Your task to perform on an android device: search for starred emails in the gmail app Image 0: 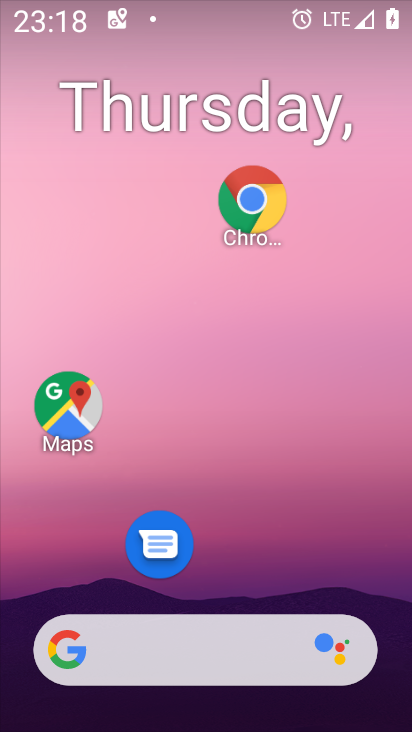
Step 0: drag from (233, 616) to (273, 165)
Your task to perform on an android device: search for starred emails in the gmail app Image 1: 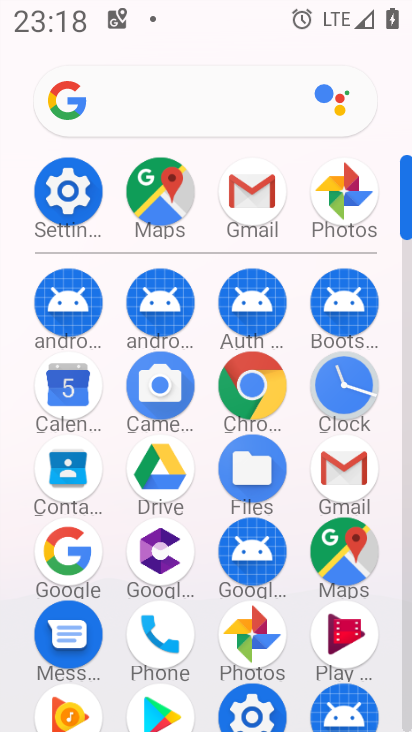
Step 1: click (259, 211)
Your task to perform on an android device: search for starred emails in the gmail app Image 2: 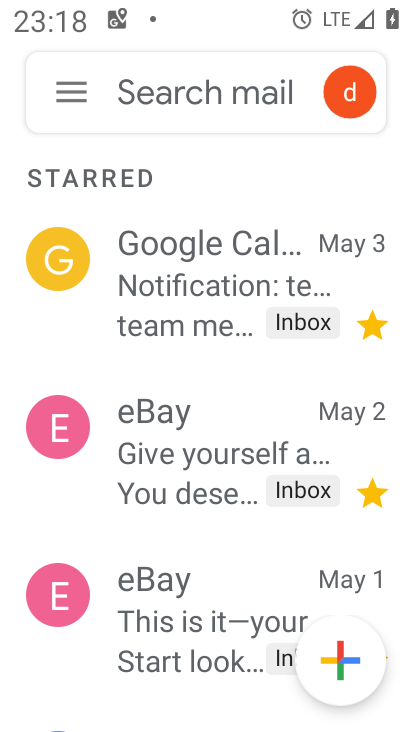
Step 2: click (81, 67)
Your task to perform on an android device: search for starred emails in the gmail app Image 3: 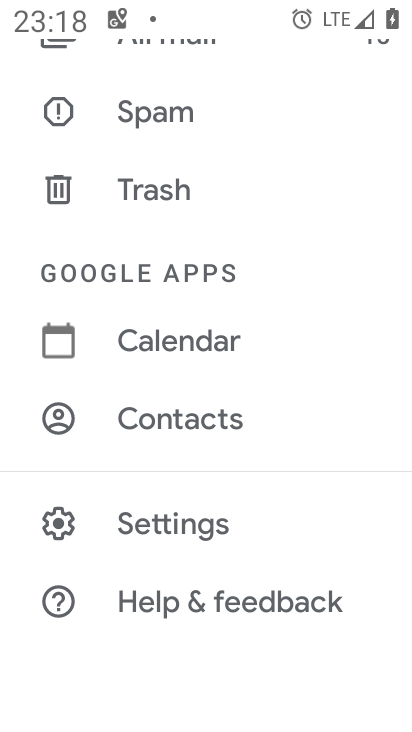
Step 3: drag from (183, 181) to (175, 574)
Your task to perform on an android device: search for starred emails in the gmail app Image 4: 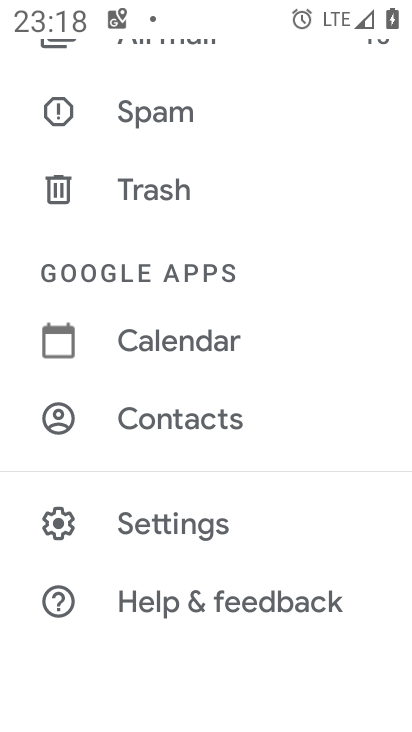
Step 4: drag from (207, 132) to (198, 611)
Your task to perform on an android device: search for starred emails in the gmail app Image 5: 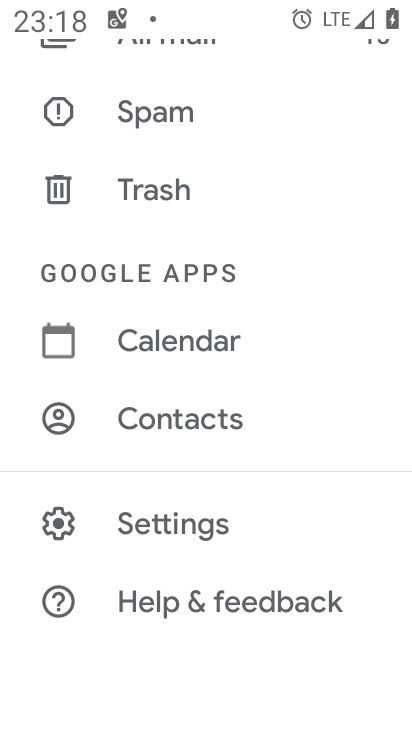
Step 5: drag from (231, 139) to (250, 602)
Your task to perform on an android device: search for starred emails in the gmail app Image 6: 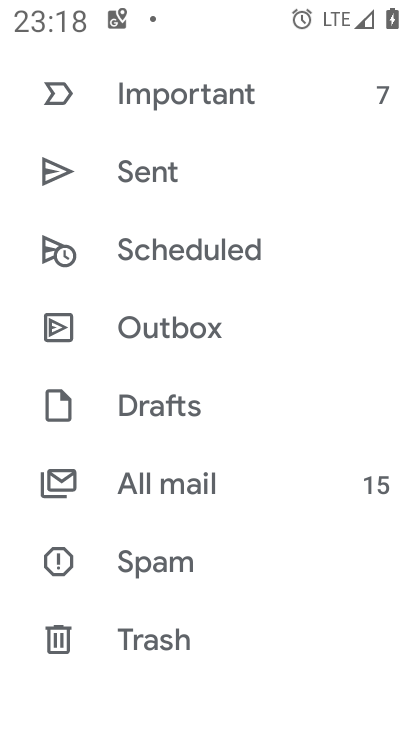
Step 6: drag from (214, 549) to (219, 652)
Your task to perform on an android device: search for starred emails in the gmail app Image 7: 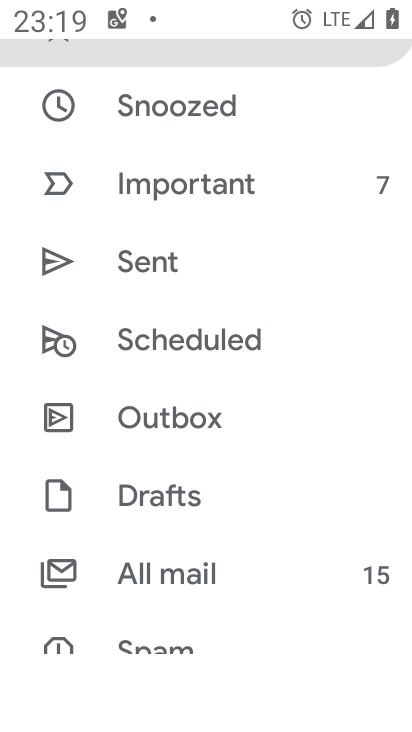
Step 7: drag from (260, 237) to (278, 605)
Your task to perform on an android device: search for starred emails in the gmail app Image 8: 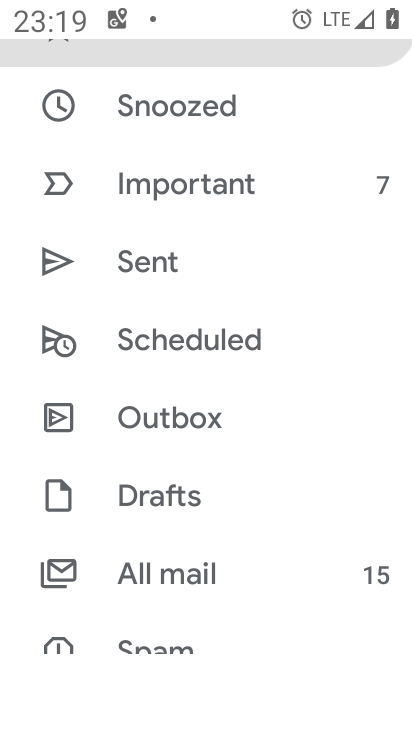
Step 8: drag from (230, 240) to (220, 682)
Your task to perform on an android device: search for starred emails in the gmail app Image 9: 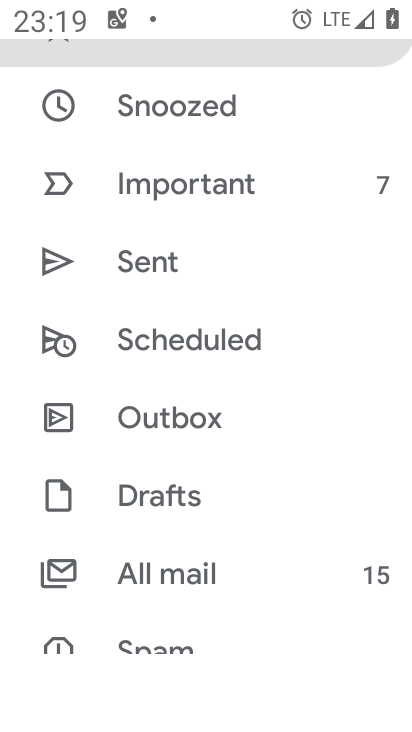
Step 9: drag from (217, 499) to (318, 26)
Your task to perform on an android device: search for starred emails in the gmail app Image 10: 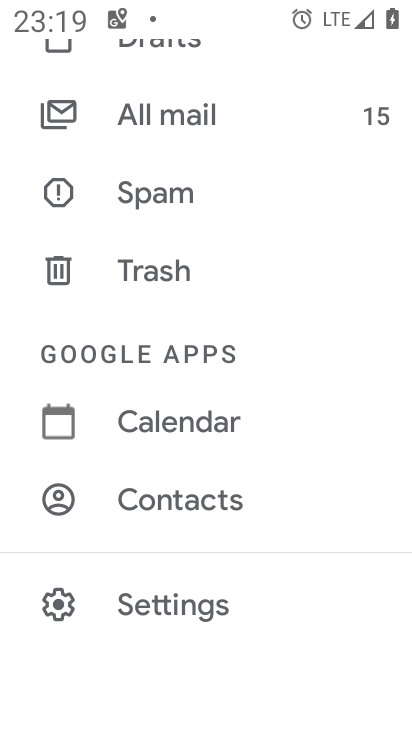
Step 10: drag from (366, 316) to (307, 640)
Your task to perform on an android device: search for starred emails in the gmail app Image 11: 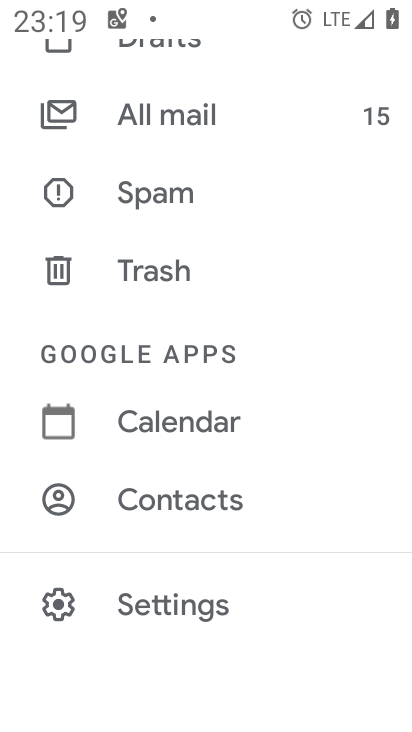
Step 11: drag from (122, 162) to (204, 665)
Your task to perform on an android device: search for starred emails in the gmail app Image 12: 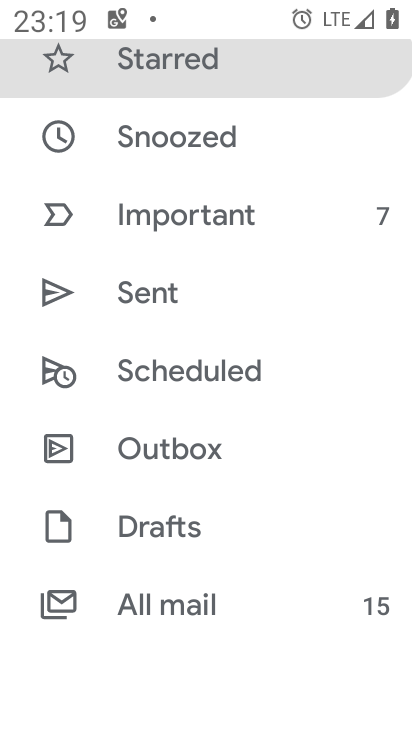
Step 12: click (169, 79)
Your task to perform on an android device: search for starred emails in the gmail app Image 13: 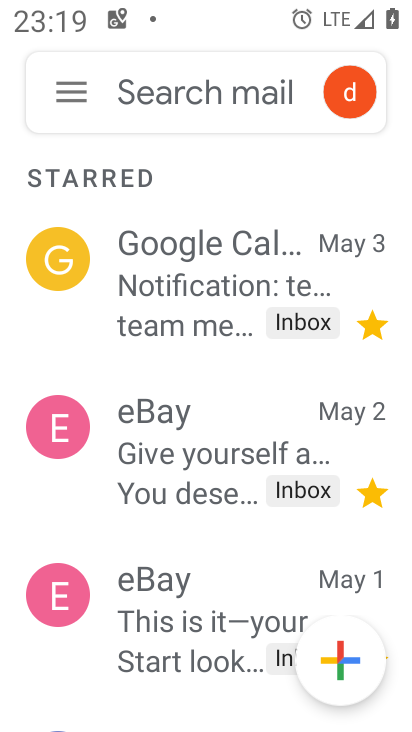
Step 13: task complete